Your task to perform on an android device: Go to battery settings Image 0: 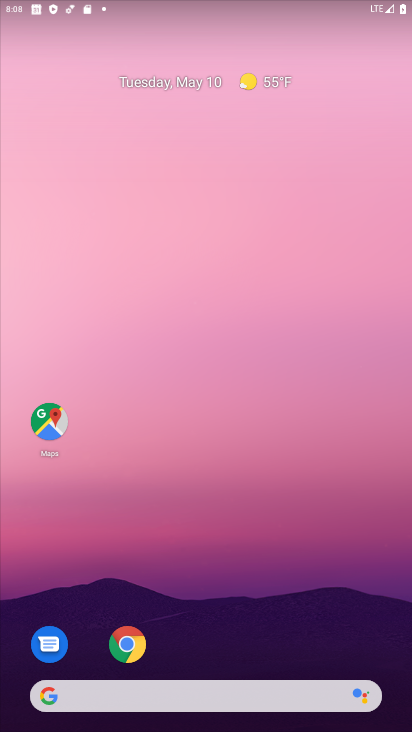
Step 0: drag from (237, 606) to (290, 102)
Your task to perform on an android device: Go to battery settings Image 1: 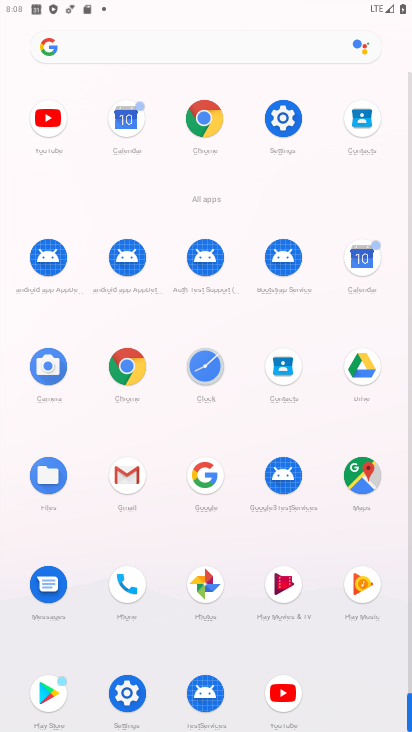
Step 1: click (290, 131)
Your task to perform on an android device: Go to battery settings Image 2: 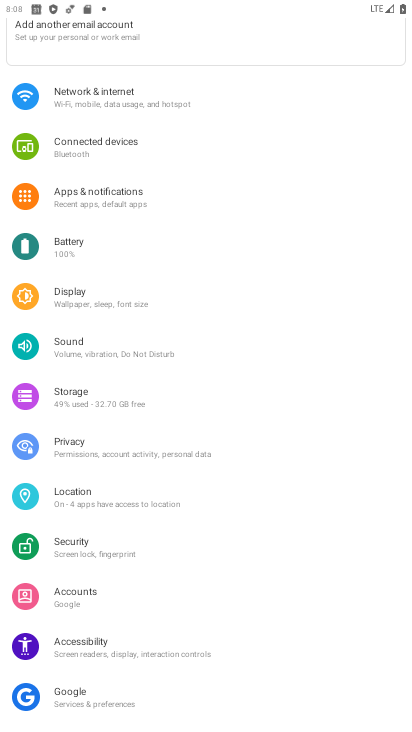
Step 2: click (99, 262)
Your task to perform on an android device: Go to battery settings Image 3: 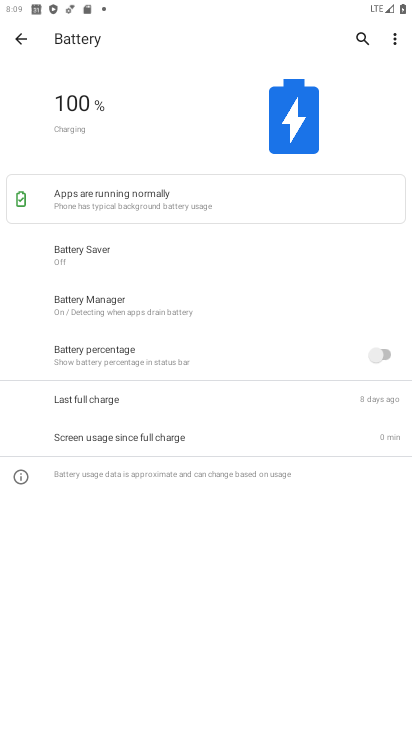
Step 3: task complete